Your task to perform on an android device: turn smart compose on in the gmail app Image 0: 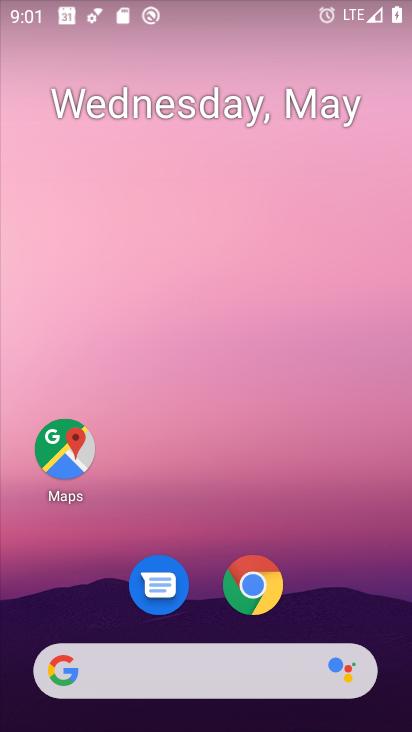
Step 0: drag from (318, 522) to (283, 73)
Your task to perform on an android device: turn smart compose on in the gmail app Image 1: 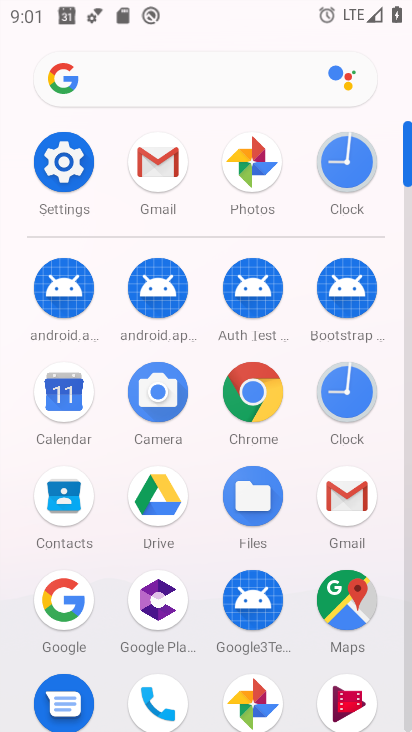
Step 1: click (170, 156)
Your task to perform on an android device: turn smart compose on in the gmail app Image 2: 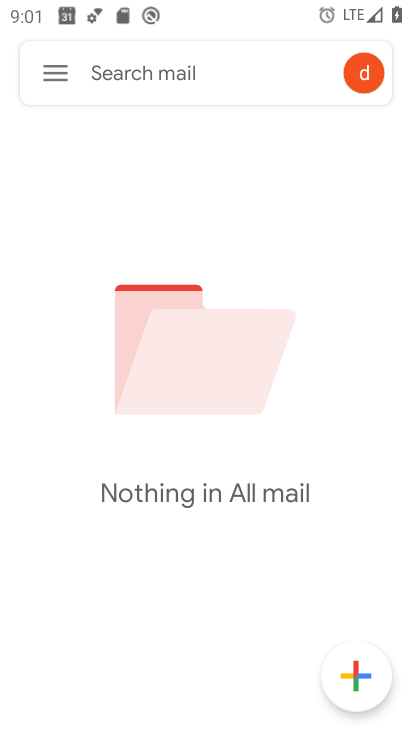
Step 2: click (50, 71)
Your task to perform on an android device: turn smart compose on in the gmail app Image 3: 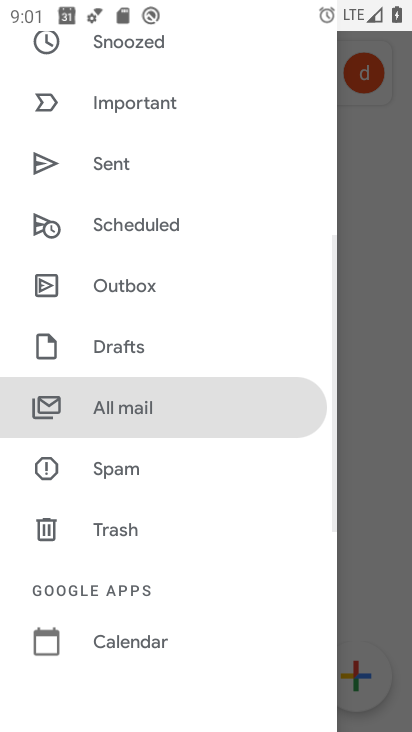
Step 3: drag from (167, 519) to (197, 217)
Your task to perform on an android device: turn smart compose on in the gmail app Image 4: 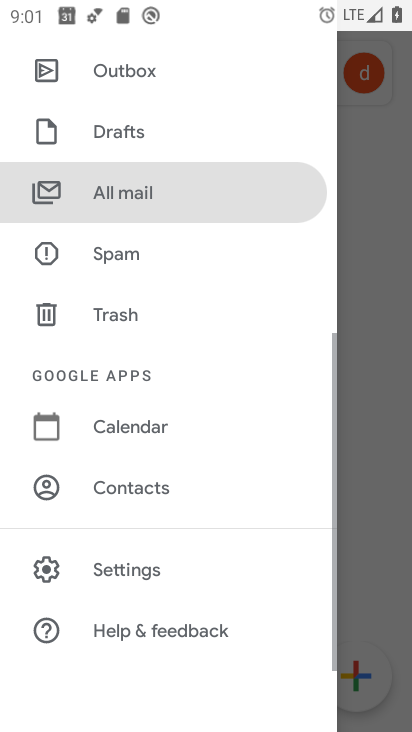
Step 4: click (152, 559)
Your task to perform on an android device: turn smart compose on in the gmail app Image 5: 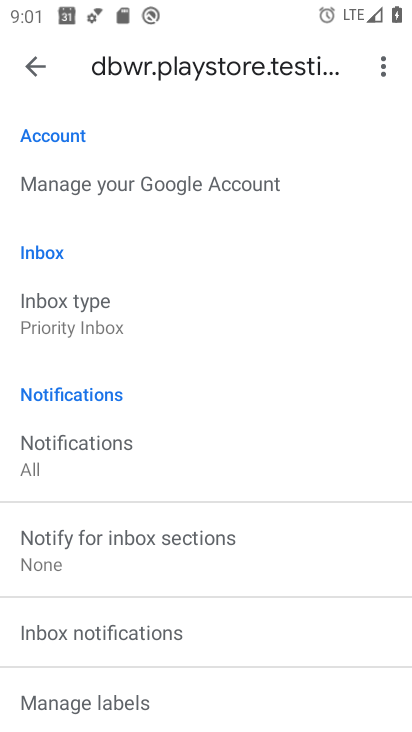
Step 5: task complete